Your task to perform on an android device: create a new album in the google photos Image 0: 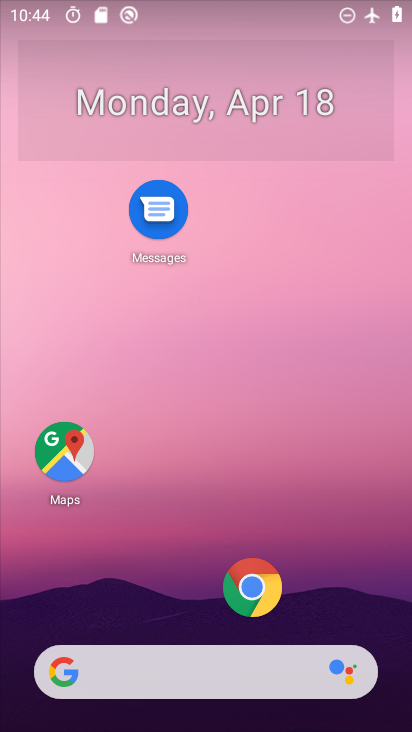
Step 0: drag from (172, 601) to (284, 0)
Your task to perform on an android device: create a new album in the google photos Image 1: 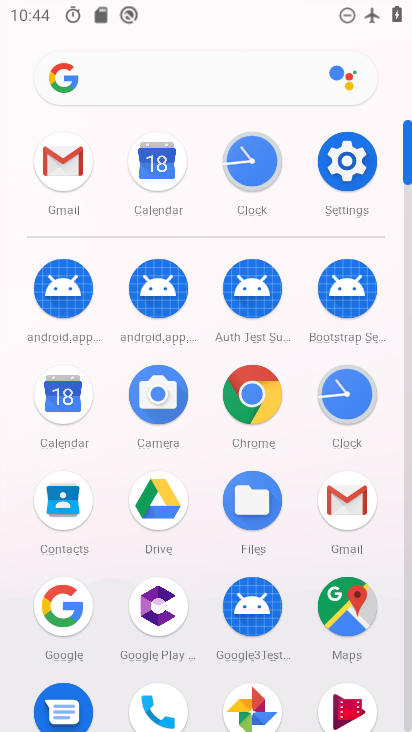
Step 1: click (256, 698)
Your task to perform on an android device: create a new album in the google photos Image 2: 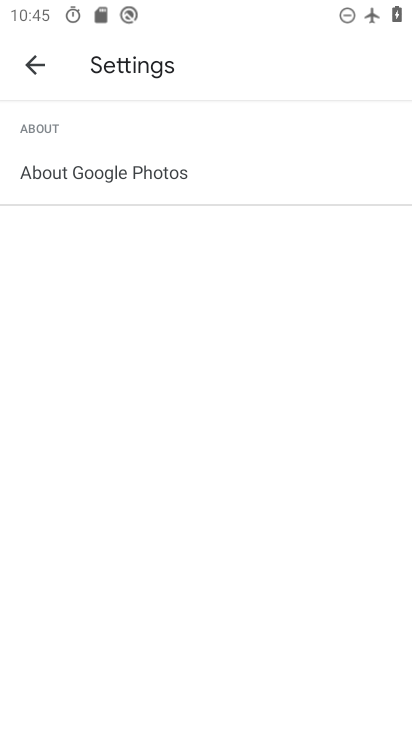
Step 2: click (37, 55)
Your task to perform on an android device: create a new album in the google photos Image 3: 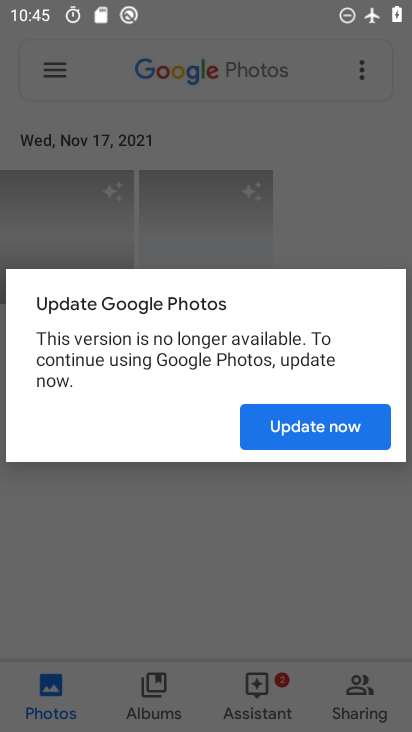
Step 3: click (277, 405)
Your task to perform on an android device: create a new album in the google photos Image 4: 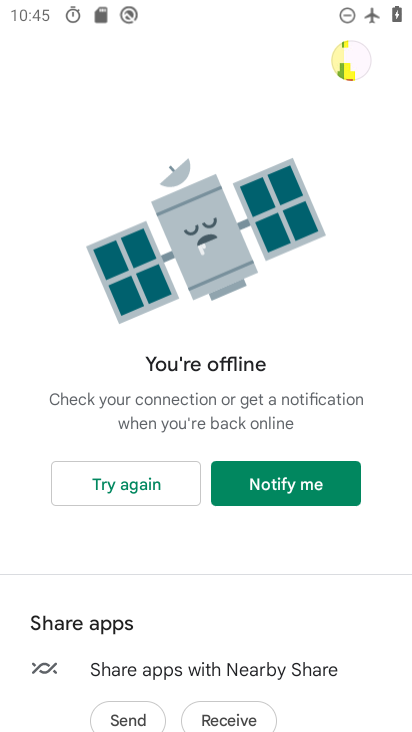
Step 4: press back button
Your task to perform on an android device: create a new album in the google photos Image 5: 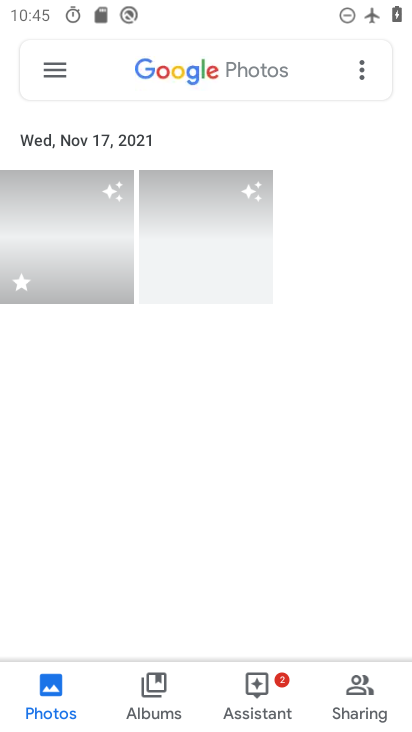
Step 5: click (148, 693)
Your task to perform on an android device: create a new album in the google photos Image 6: 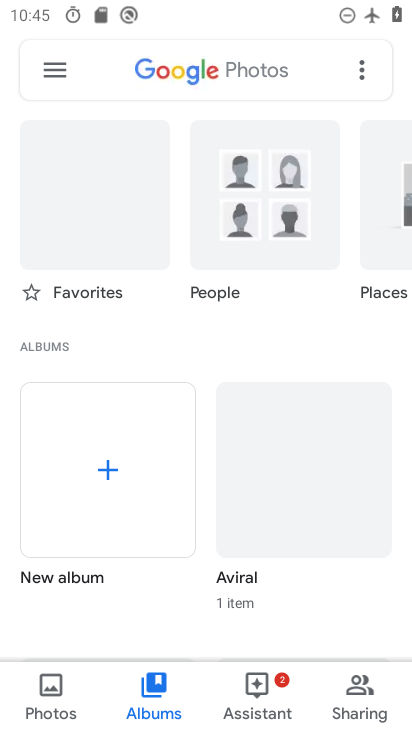
Step 6: click (85, 462)
Your task to perform on an android device: create a new album in the google photos Image 7: 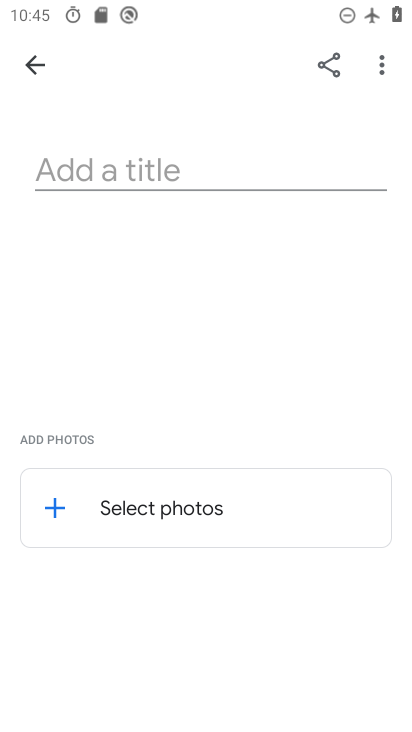
Step 7: click (160, 165)
Your task to perform on an android device: create a new album in the google photos Image 8: 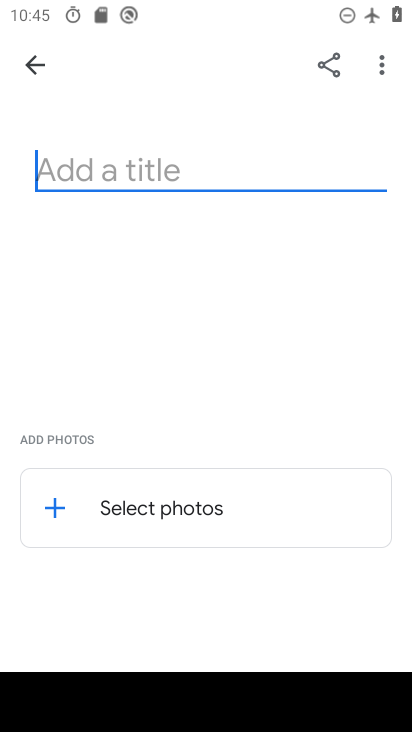
Step 8: type "lobstre"
Your task to perform on an android device: create a new album in the google photos Image 9: 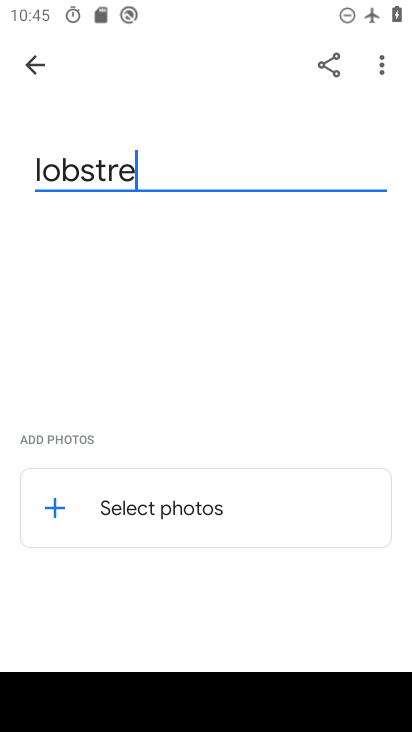
Step 9: click (49, 499)
Your task to perform on an android device: create a new album in the google photos Image 10: 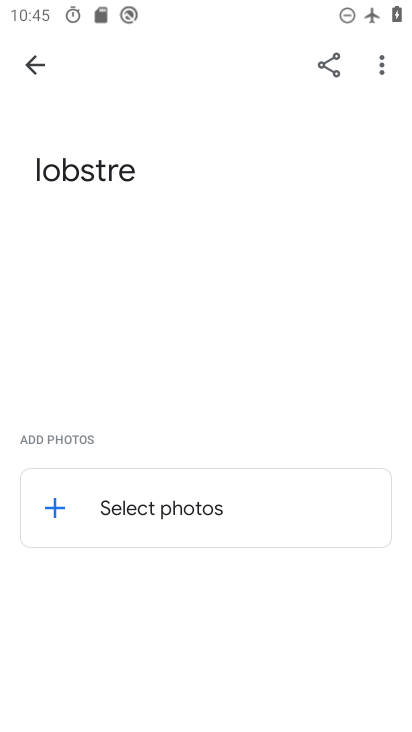
Step 10: click (49, 500)
Your task to perform on an android device: create a new album in the google photos Image 11: 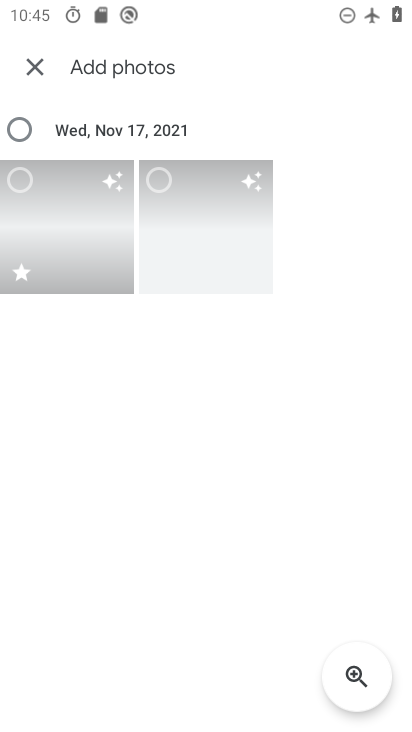
Step 11: click (26, 189)
Your task to perform on an android device: create a new album in the google photos Image 12: 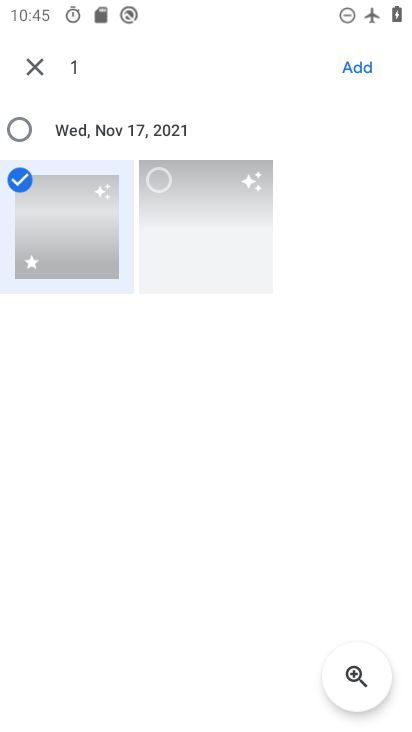
Step 12: click (171, 189)
Your task to perform on an android device: create a new album in the google photos Image 13: 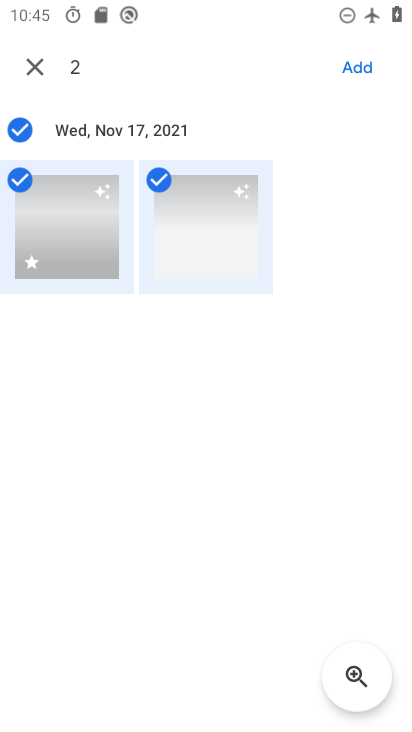
Step 13: click (375, 67)
Your task to perform on an android device: create a new album in the google photos Image 14: 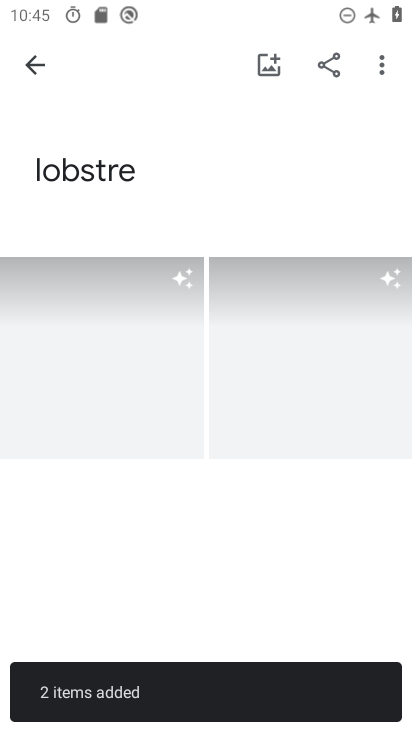
Step 14: task complete